Your task to perform on an android device: Go to display settings Image 0: 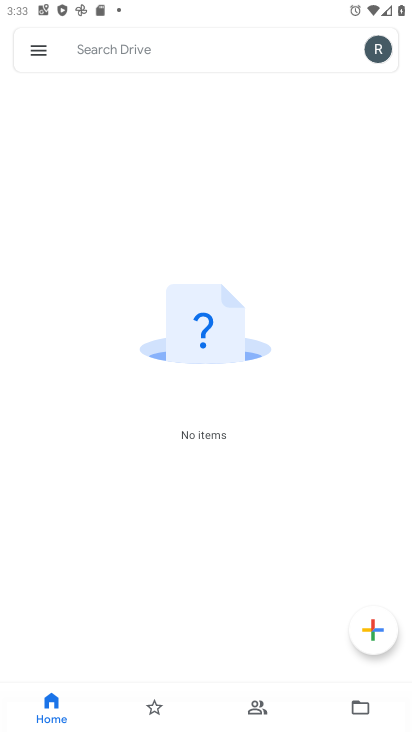
Step 0: press home button
Your task to perform on an android device: Go to display settings Image 1: 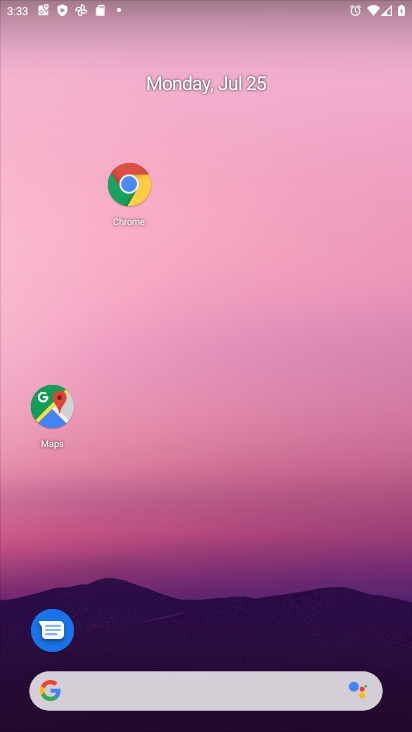
Step 1: drag from (194, 630) to (192, 366)
Your task to perform on an android device: Go to display settings Image 2: 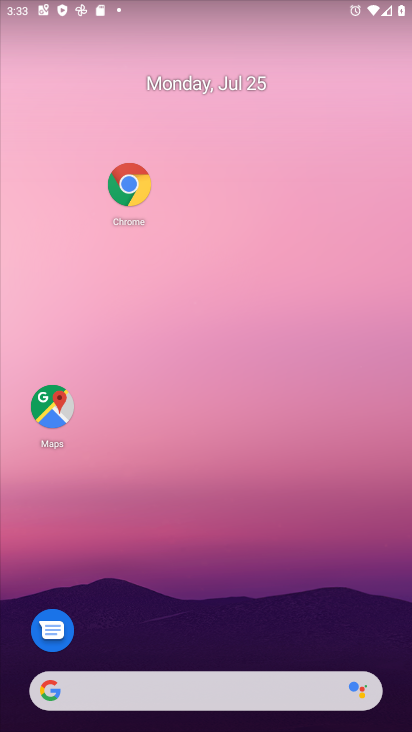
Step 2: drag from (230, 630) to (255, 120)
Your task to perform on an android device: Go to display settings Image 3: 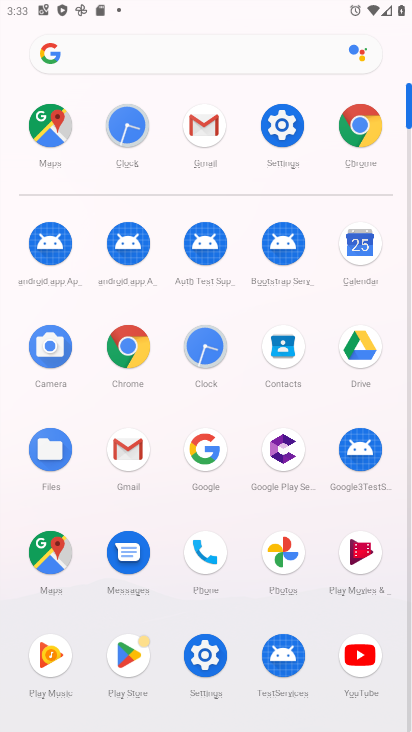
Step 3: click (267, 125)
Your task to perform on an android device: Go to display settings Image 4: 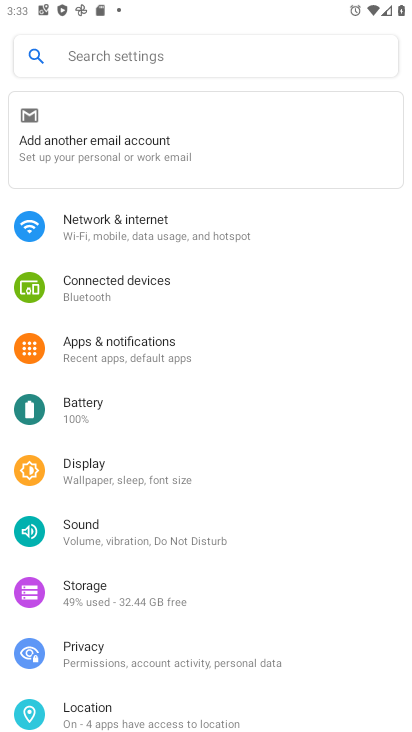
Step 4: click (104, 459)
Your task to perform on an android device: Go to display settings Image 5: 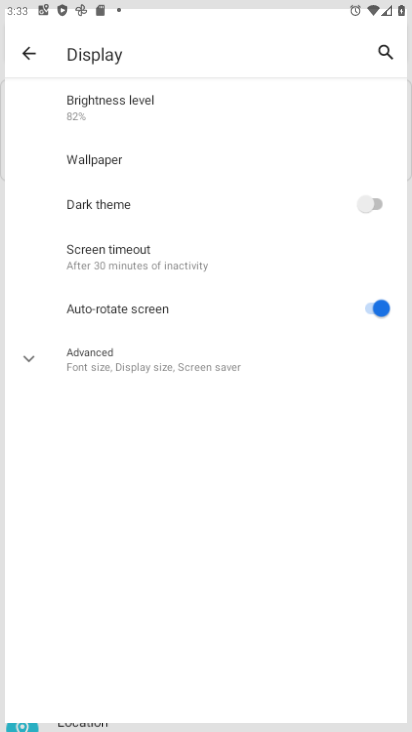
Step 5: task complete